Your task to perform on an android device: Go to ESPN.com Image 0: 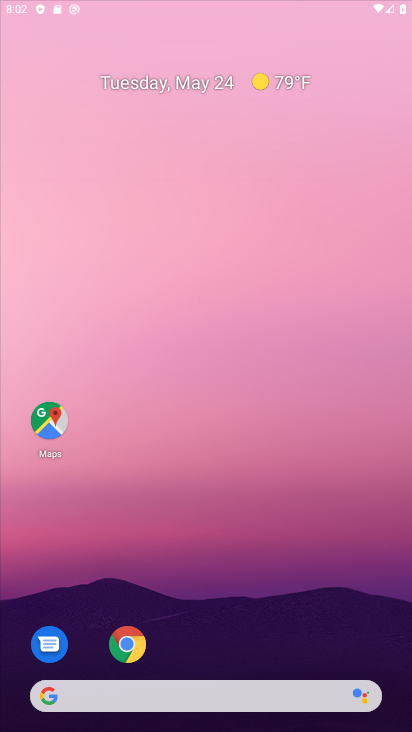
Step 0: click (271, 0)
Your task to perform on an android device: Go to ESPN.com Image 1: 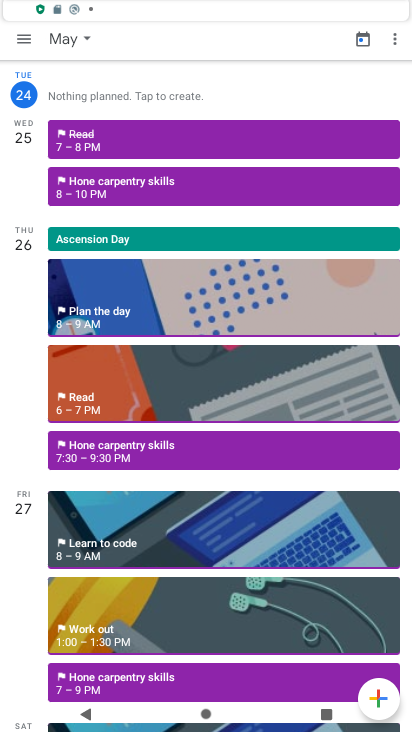
Step 1: press back button
Your task to perform on an android device: Go to ESPN.com Image 2: 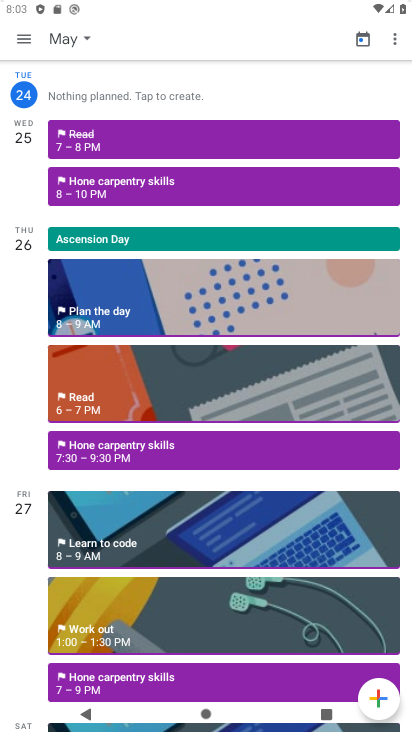
Step 2: press back button
Your task to perform on an android device: Go to ESPN.com Image 3: 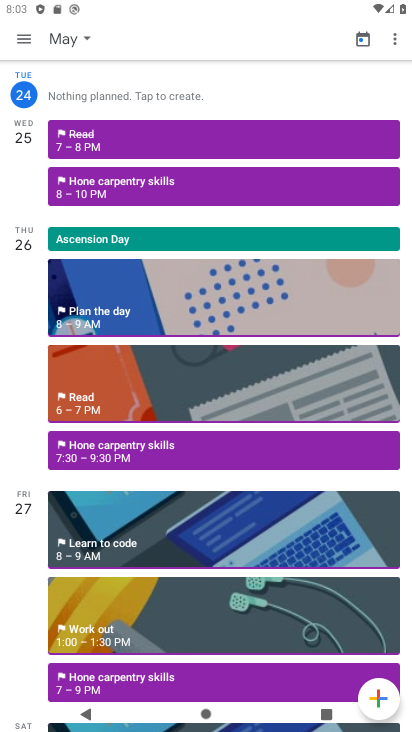
Step 3: drag from (271, 0) to (341, 319)
Your task to perform on an android device: Go to ESPN.com Image 4: 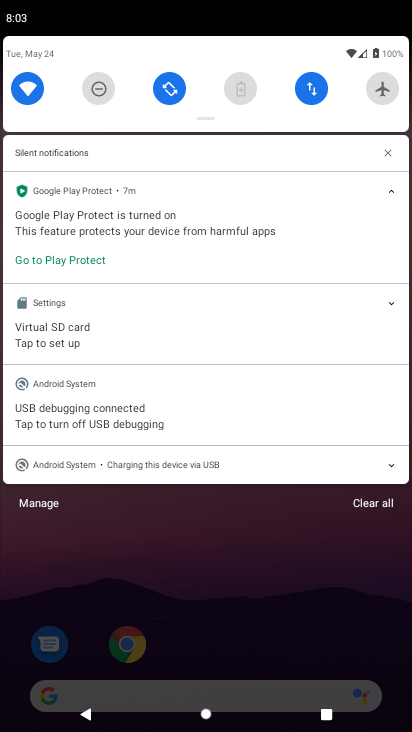
Step 4: drag from (161, 20) to (200, 12)
Your task to perform on an android device: Go to ESPN.com Image 5: 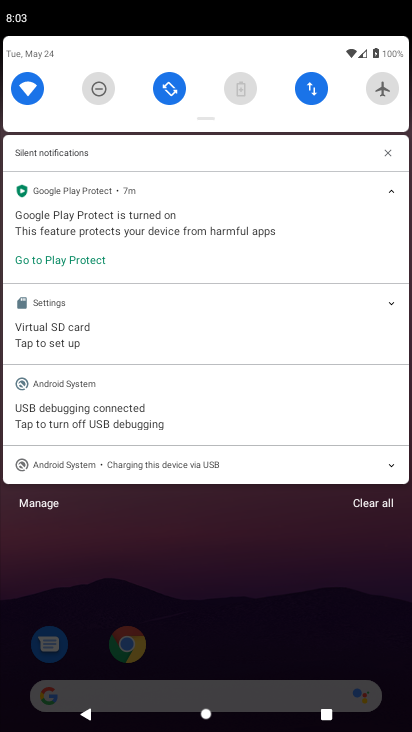
Step 5: drag from (314, 574) to (237, 41)
Your task to perform on an android device: Go to ESPN.com Image 6: 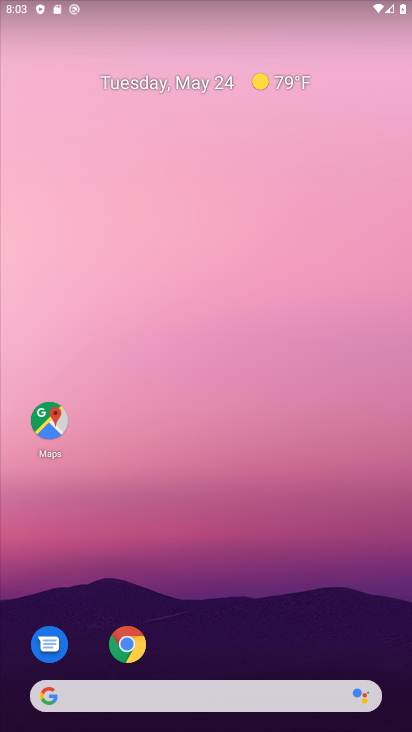
Step 6: drag from (283, 715) to (80, 20)
Your task to perform on an android device: Go to ESPN.com Image 7: 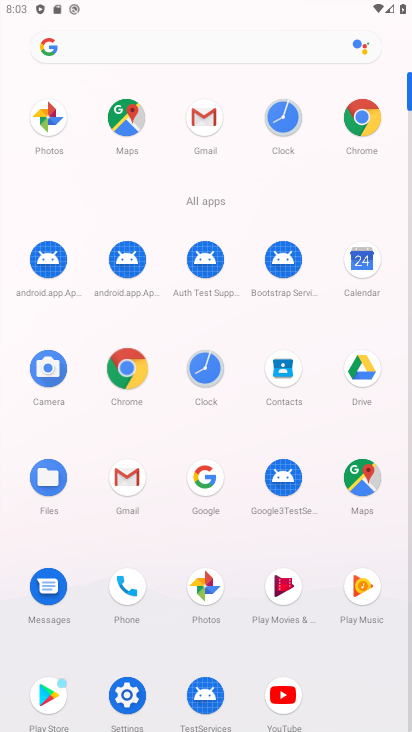
Step 7: click (360, 124)
Your task to perform on an android device: Go to ESPN.com Image 8: 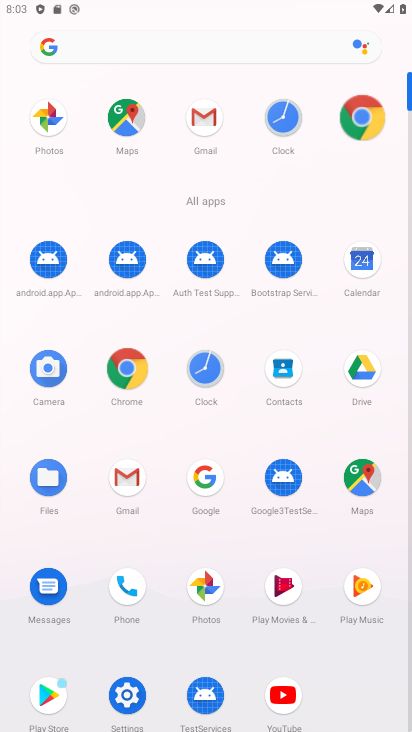
Step 8: click (360, 124)
Your task to perform on an android device: Go to ESPN.com Image 9: 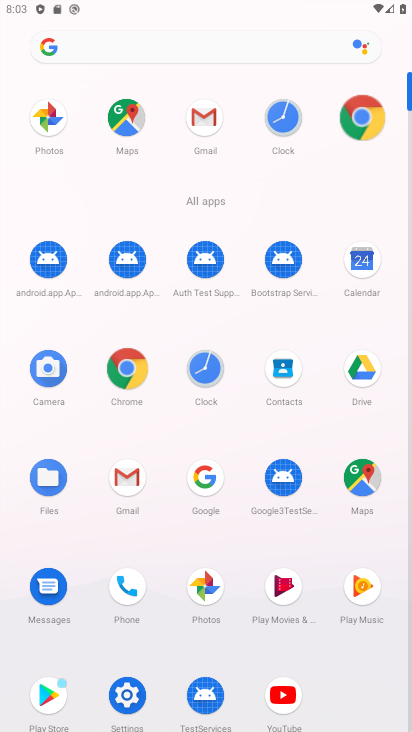
Step 9: click (363, 123)
Your task to perform on an android device: Go to ESPN.com Image 10: 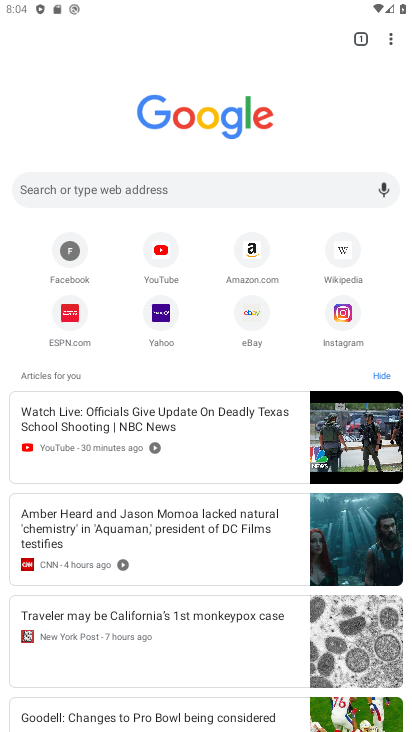
Step 10: click (74, 318)
Your task to perform on an android device: Go to ESPN.com Image 11: 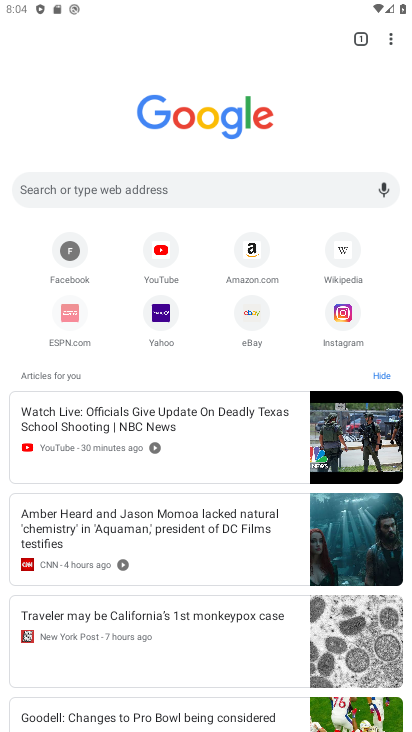
Step 11: click (75, 316)
Your task to perform on an android device: Go to ESPN.com Image 12: 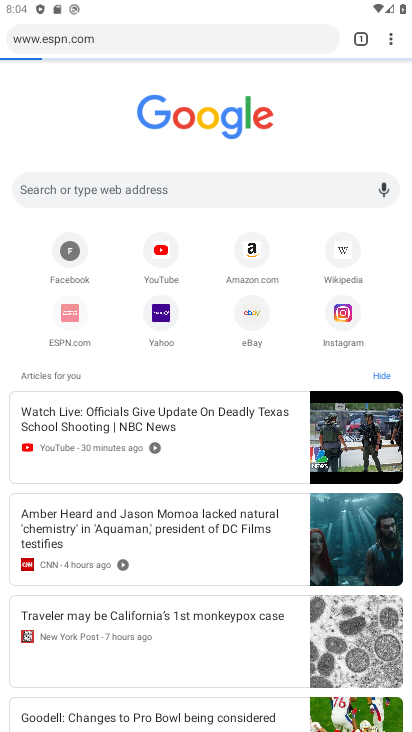
Step 12: click (82, 315)
Your task to perform on an android device: Go to ESPN.com Image 13: 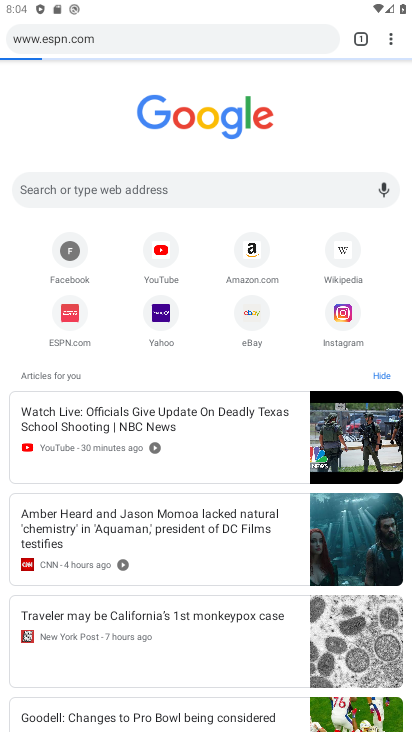
Step 13: click (83, 315)
Your task to perform on an android device: Go to ESPN.com Image 14: 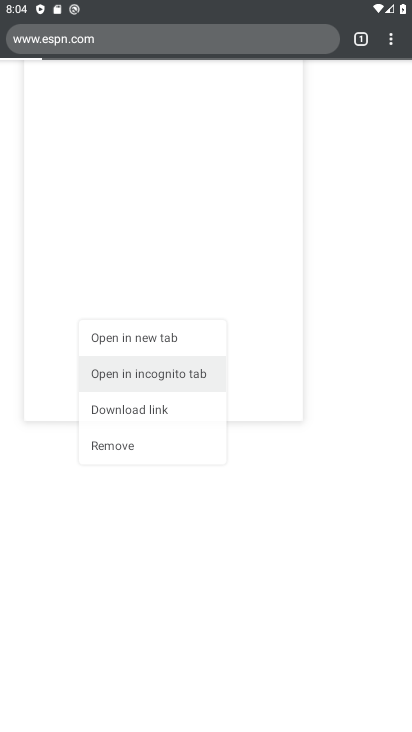
Step 14: click (85, 315)
Your task to perform on an android device: Go to ESPN.com Image 15: 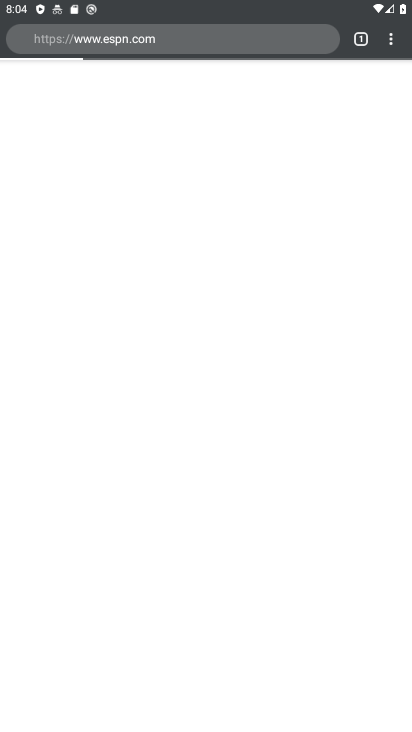
Step 15: click (85, 315)
Your task to perform on an android device: Go to ESPN.com Image 16: 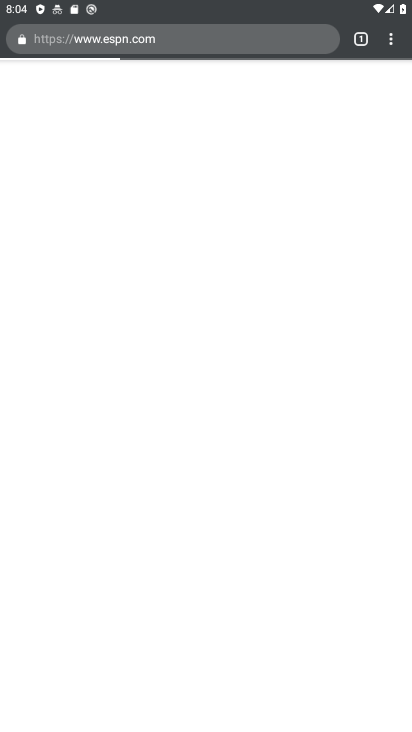
Step 16: click (86, 315)
Your task to perform on an android device: Go to ESPN.com Image 17: 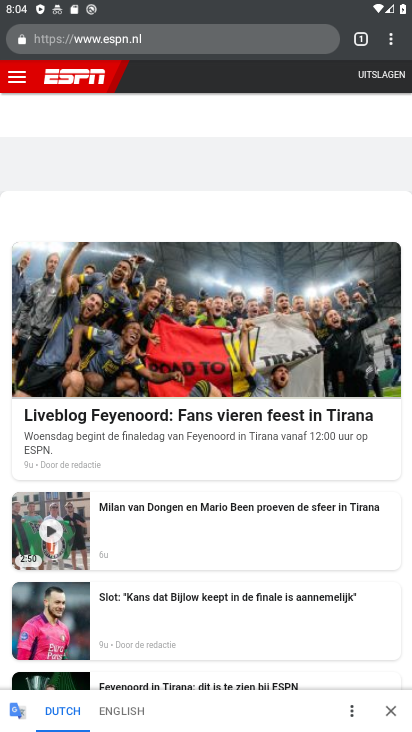
Step 17: task complete